Your task to perform on an android device: install app "Paramount+ | Peak Streaming" Image 0: 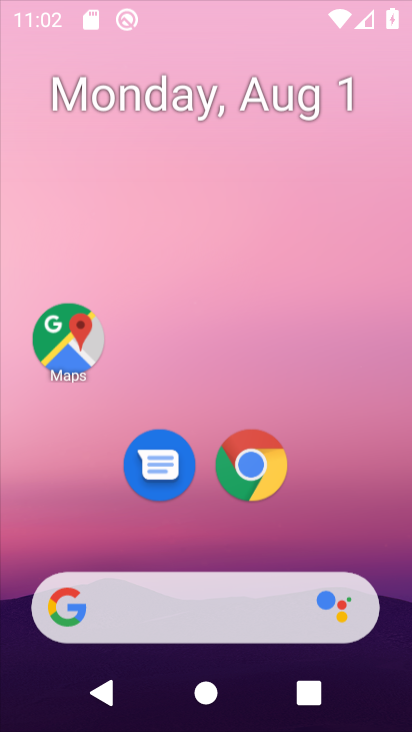
Step 0: click (240, 47)
Your task to perform on an android device: install app "Paramount+ | Peak Streaming" Image 1: 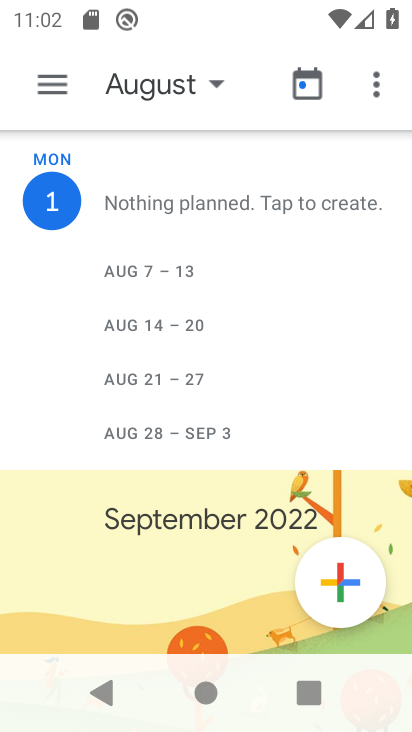
Step 1: press home button
Your task to perform on an android device: install app "Paramount+ | Peak Streaming" Image 2: 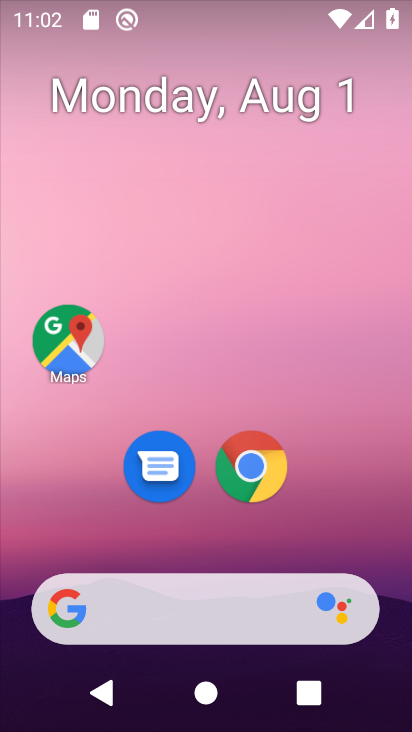
Step 2: drag from (228, 719) to (235, 122)
Your task to perform on an android device: install app "Paramount+ | Peak Streaming" Image 3: 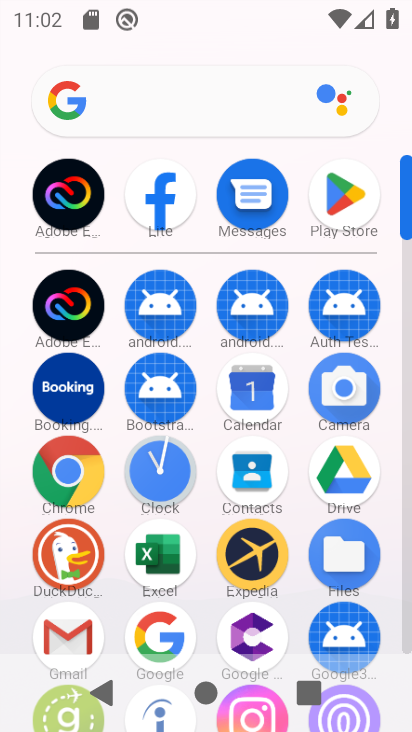
Step 3: click (348, 196)
Your task to perform on an android device: install app "Paramount+ | Peak Streaming" Image 4: 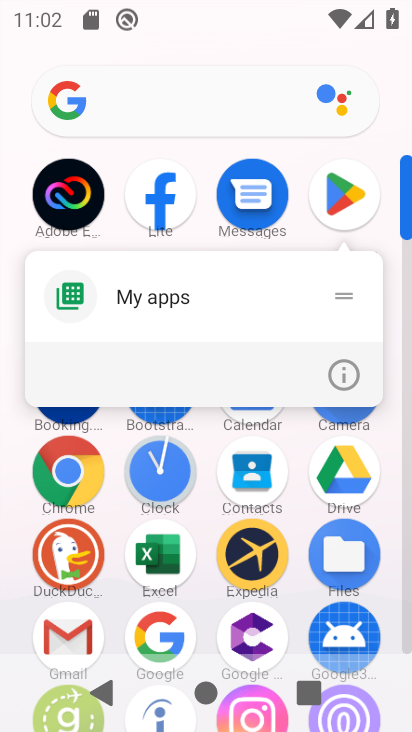
Step 4: click (339, 201)
Your task to perform on an android device: install app "Paramount+ | Peak Streaming" Image 5: 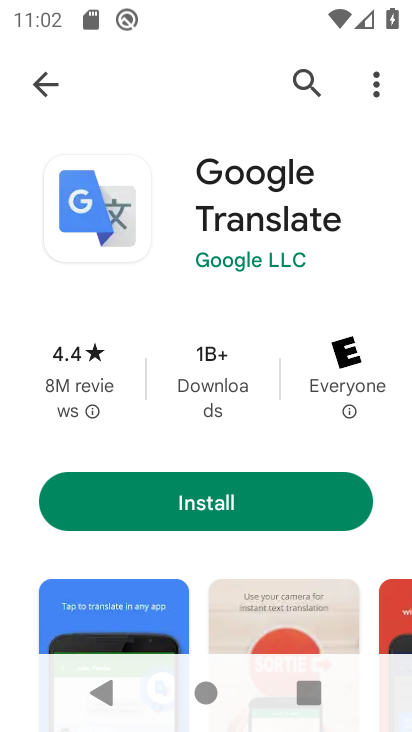
Step 5: click (303, 82)
Your task to perform on an android device: install app "Paramount+ | Peak Streaming" Image 6: 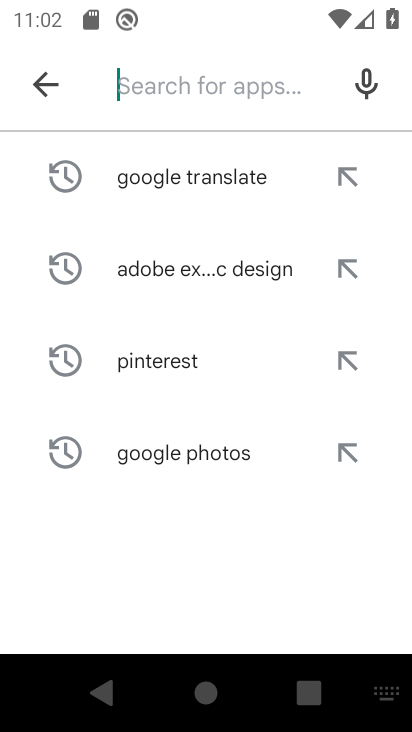
Step 6: type "Paramount+ | Peak Streaming"
Your task to perform on an android device: install app "Paramount+ | Peak Streaming" Image 7: 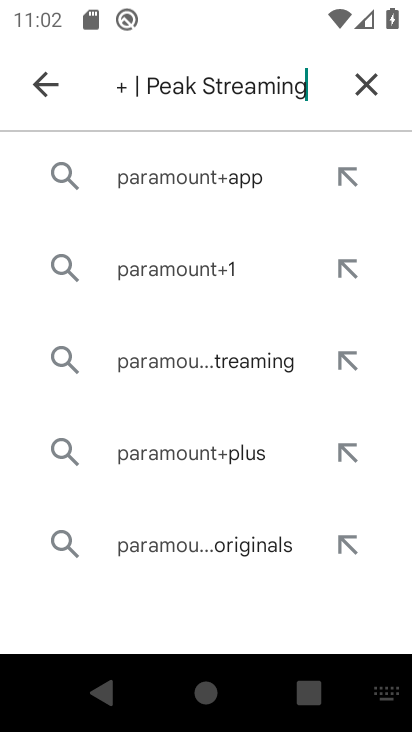
Step 7: type ""
Your task to perform on an android device: install app "Paramount+ | Peak Streaming" Image 8: 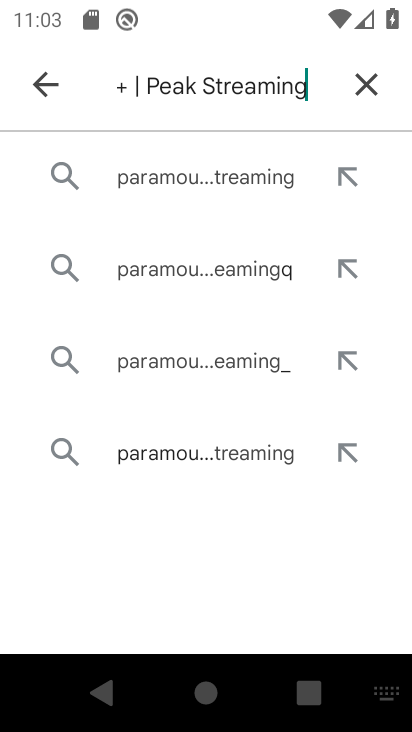
Step 8: click (221, 175)
Your task to perform on an android device: install app "Paramount+ | Peak Streaming" Image 9: 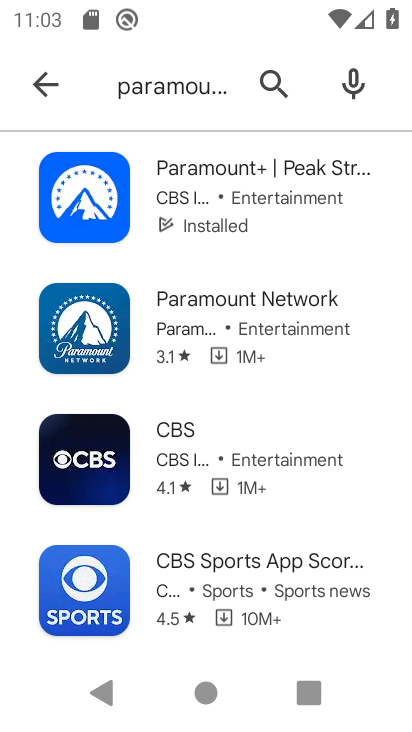
Step 9: click (227, 172)
Your task to perform on an android device: install app "Paramount+ | Peak Streaming" Image 10: 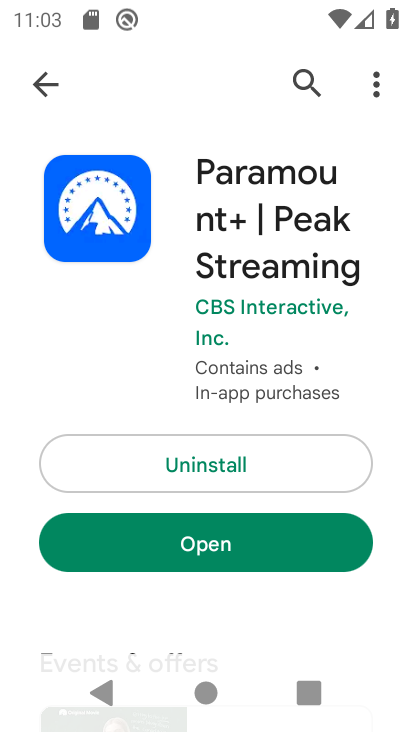
Step 10: task complete